Your task to perform on an android device: See recent photos Image 0: 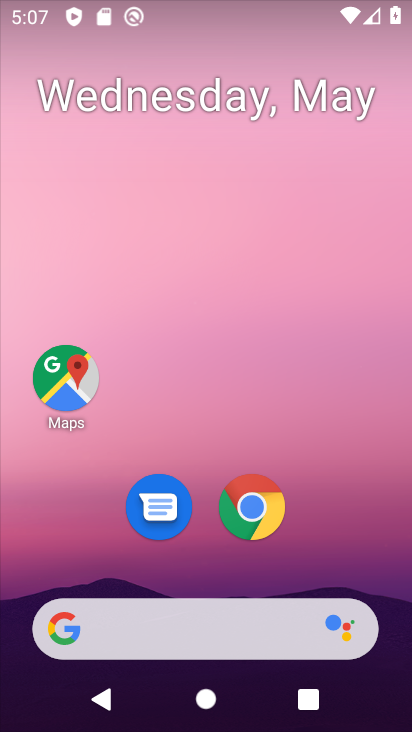
Step 0: drag from (349, 551) to (215, 102)
Your task to perform on an android device: See recent photos Image 1: 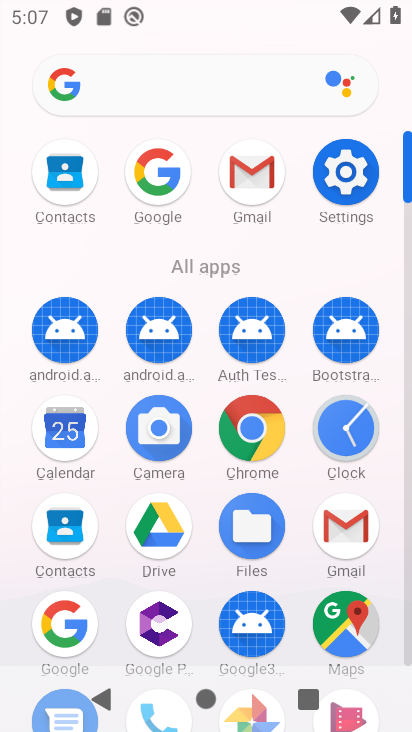
Step 1: drag from (294, 493) to (306, 269)
Your task to perform on an android device: See recent photos Image 2: 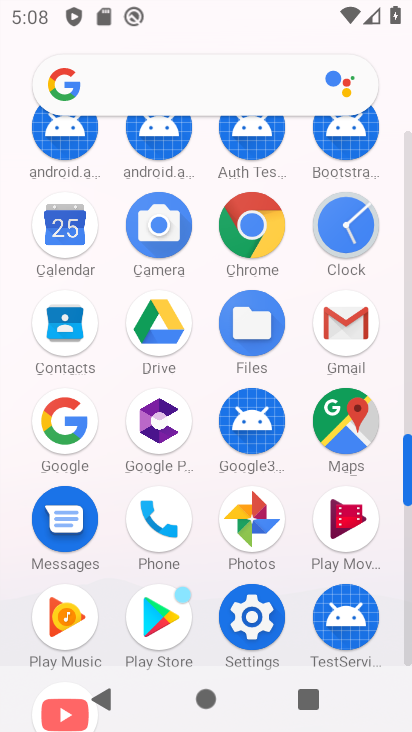
Step 2: click (252, 518)
Your task to perform on an android device: See recent photos Image 3: 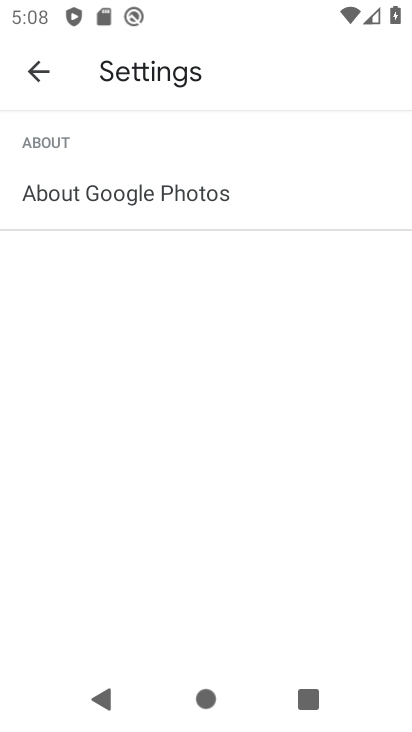
Step 3: click (39, 68)
Your task to perform on an android device: See recent photos Image 4: 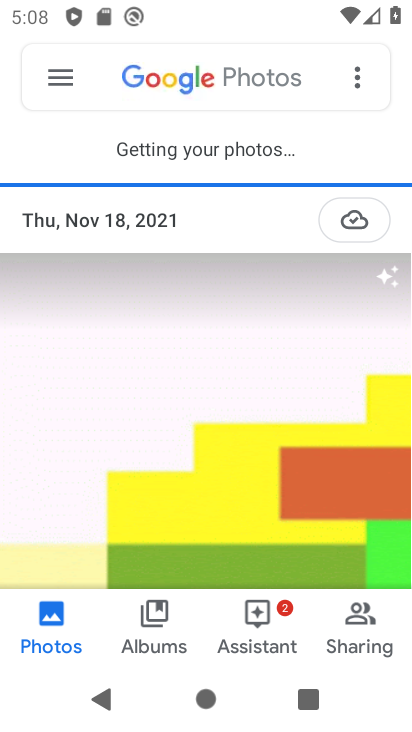
Step 4: click (227, 322)
Your task to perform on an android device: See recent photos Image 5: 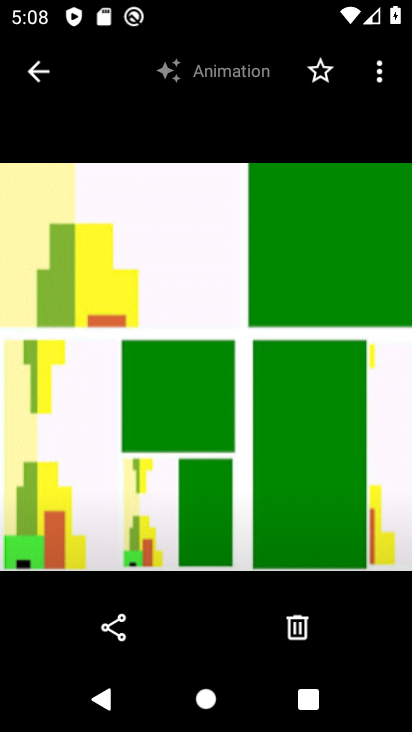
Step 5: task complete